Your task to perform on an android device: Do I have any events today? Image 0: 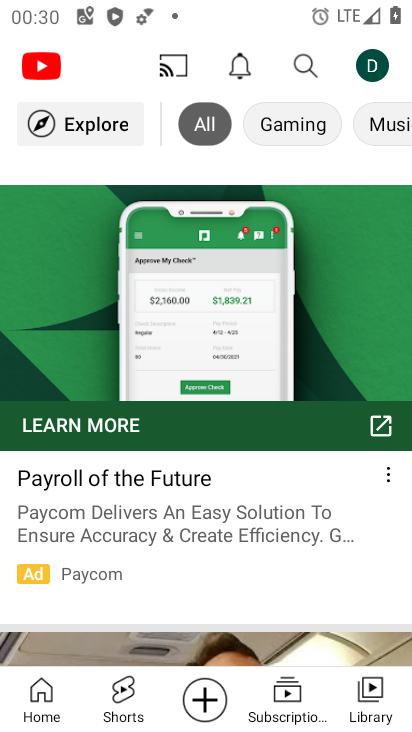
Step 0: press home button
Your task to perform on an android device: Do I have any events today? Image 1: 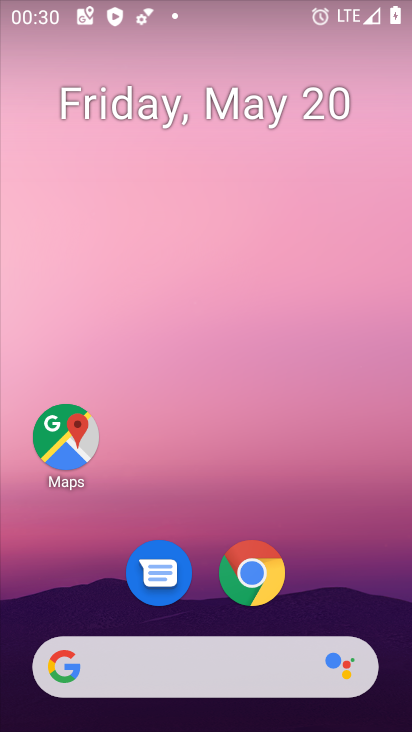
Step 1: drag from (202, 613) to (212, 209)
Your task to perform on an android device: Do I have any events today? Image 2: 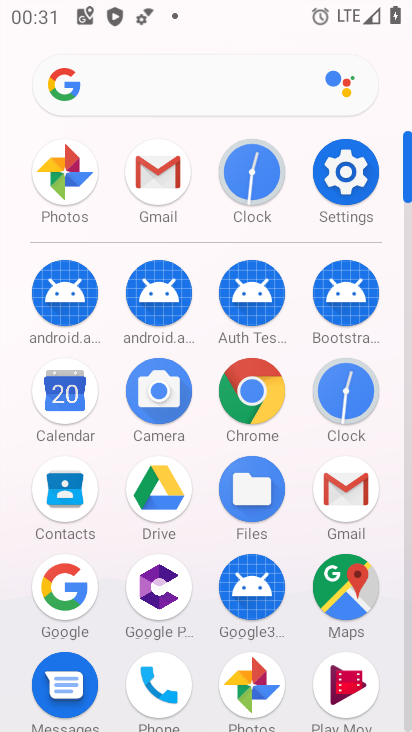
Step 2: click (84, 412)
Your task to perform on an android device: Do I have any events today? Image 3: 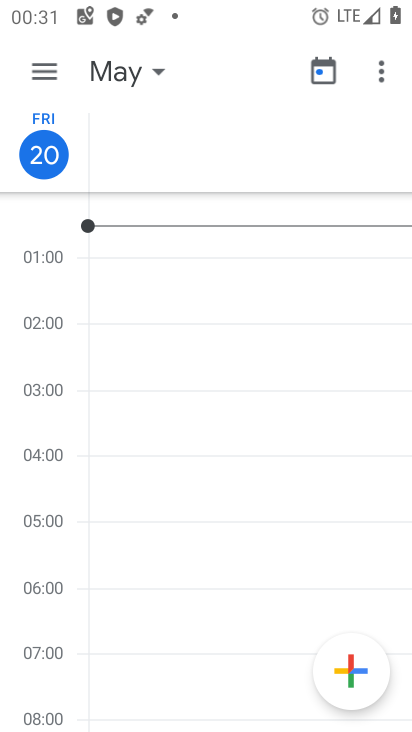
Step 3: click (156, 78)
Your task to perform on an android device: Do I have any events today? Image 4: 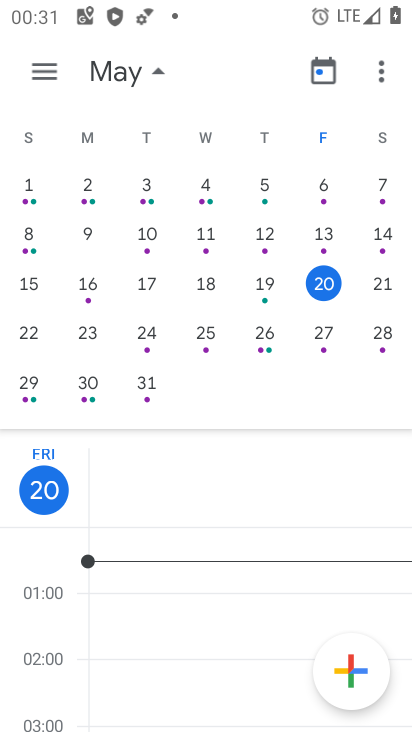
Step 4: click (313, 284)
Your task to perform on an android device: Do I have any events today? Image 5: 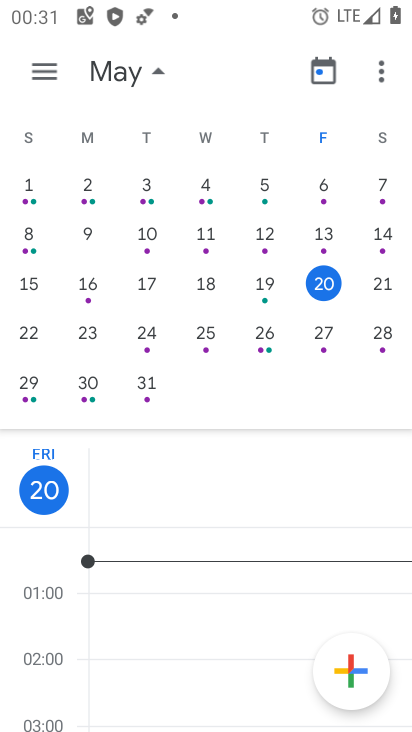
Step 5: task complete